Your task to perform on an android device: turn off wifi Image 0: 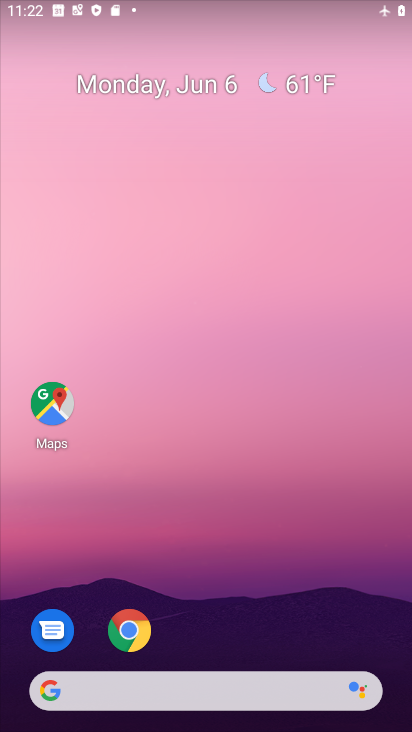
Step 0: drag from (305, 531) to (280, 120)
Your task to perform on an android device: turn off wifi Image 1: 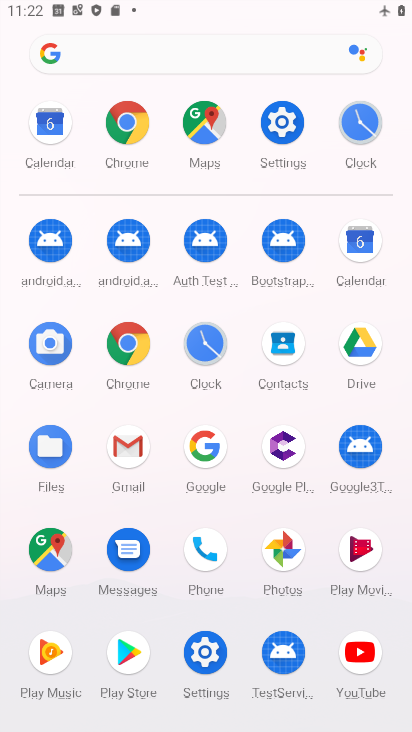
Step 1: click (279, 131)
Your task to perform on an android device: turn off wifi Image 2: 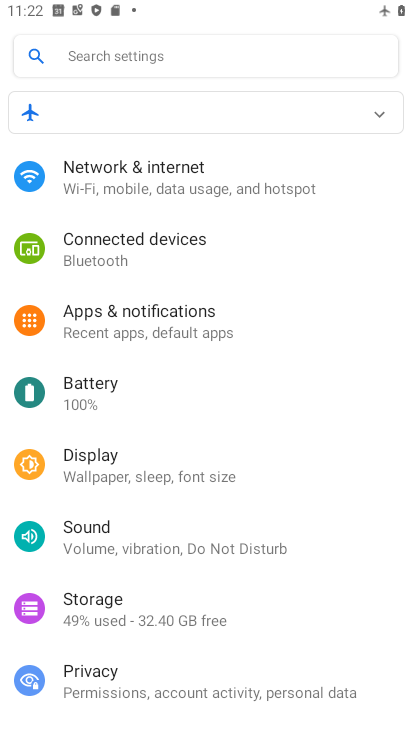
Step 2: click (219, 197)
Your task to perform on an android device: turn off wifi Image 3: 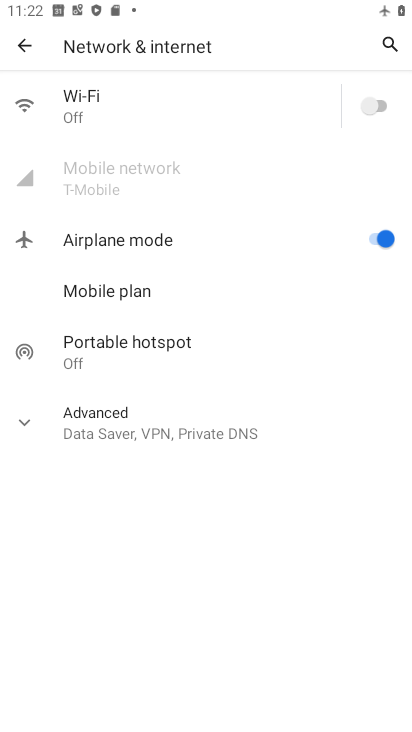
Step 3: task complete